Your task to perform on an android device: Go to internet settings Image 0: 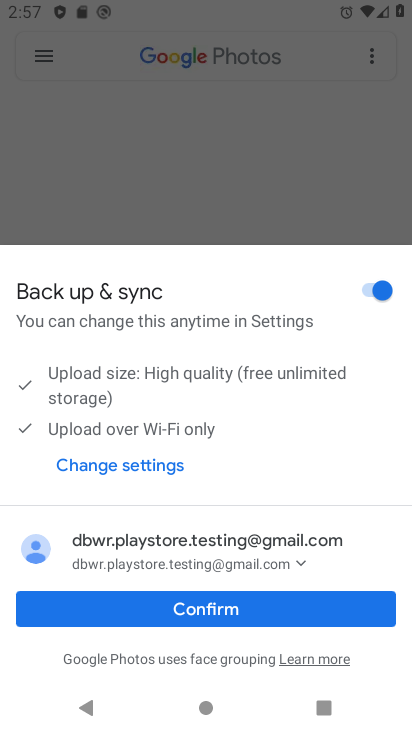
Step 0: press home button
Your task to perform on an android device: Go to internet settings Image 1: 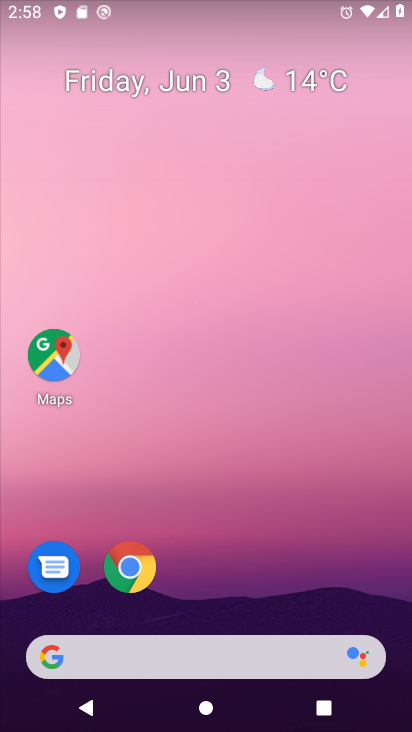
Step 1: drag from (226, 344) to (150, 49)
Your task to perform on an android device: Go to internet settings Image 2: 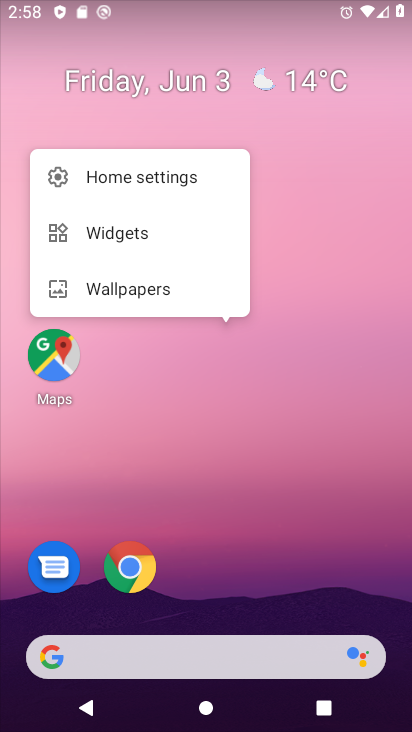
Step 2: drag from (246, 721) to (279, 182)
Your task to perform on an android device: Go to internet settings Image 3: 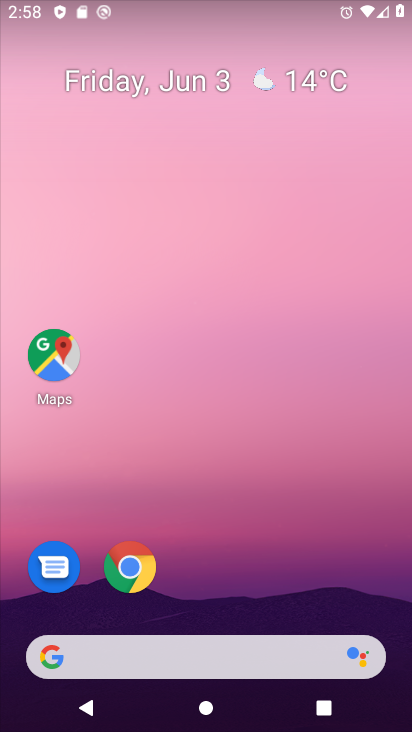
Step 3: drag from (275, 676) to (144, 0)
Your task to perform on an android device: Go to internet settings Image 4: 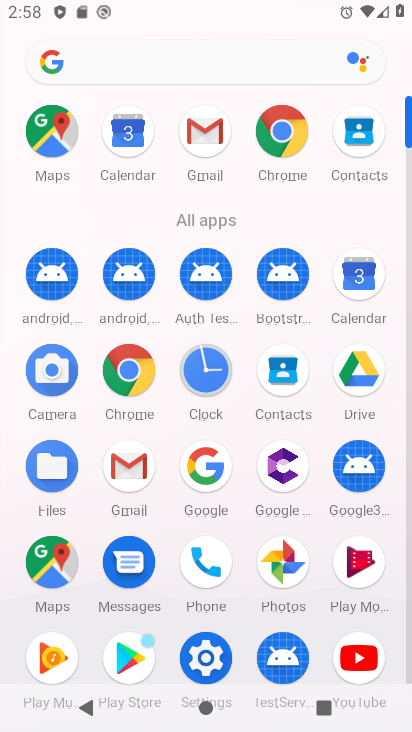
Step 4: click (213, 661)
Your task to perform on an android device: Go to internet settings Image 5: 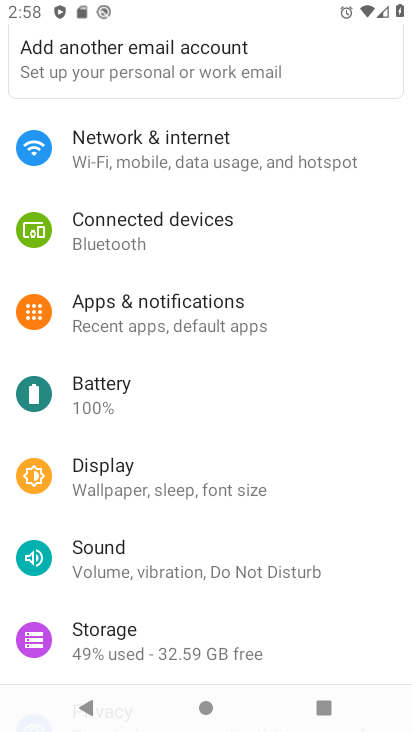
Step 5: click (200, 165)
Your task to perform on an android device: Go to internet settings Image 6: 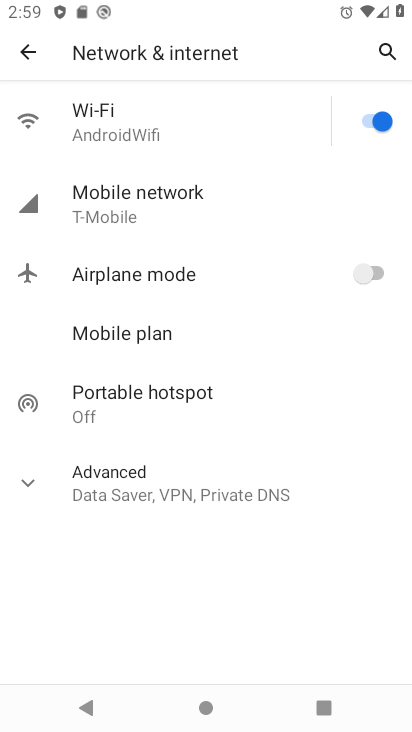
Step 6: task complete